Your task to perform on an android device: Go to eBay Image 0: 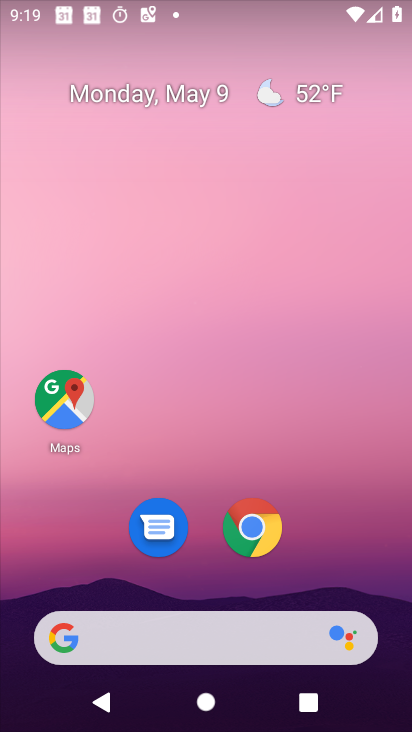
Step 0: drag from (364, 551) to (399, 156)
Your task to perform on an android device: Go to eBay Image 1: 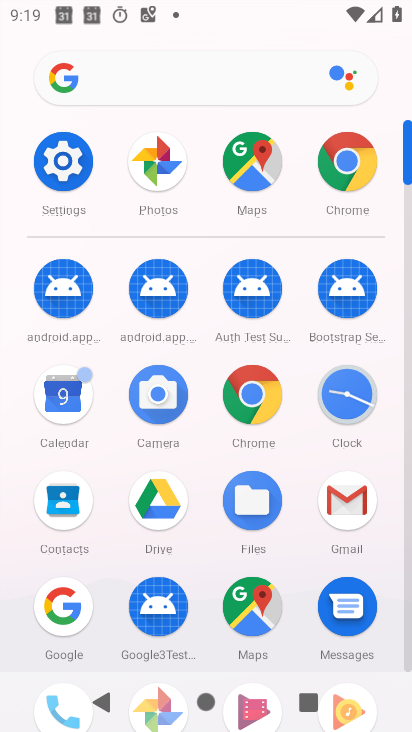
Step 1: click (363, 173)
Your task to perform on an android device: Go to eBay Image 2: 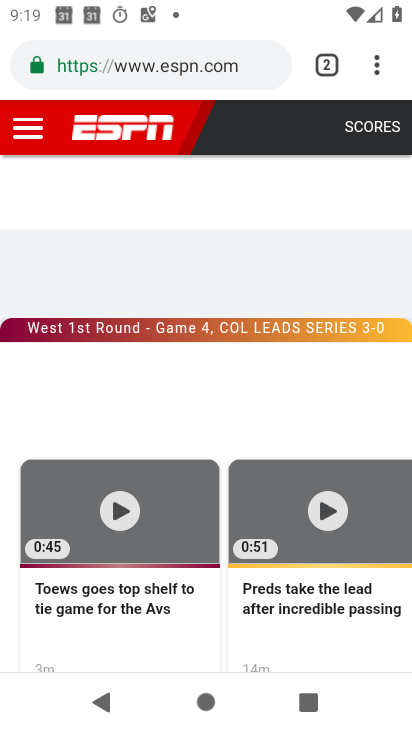
Step 2: click (243, 66)
Your task to perform on an android device: Go to eBay Image 3: 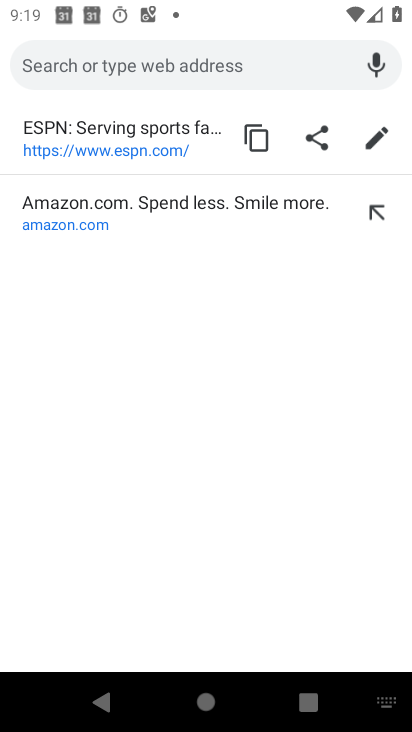
Step 3: type "ebay"
Your task to perform on an android device: Go to eBay Image 4: 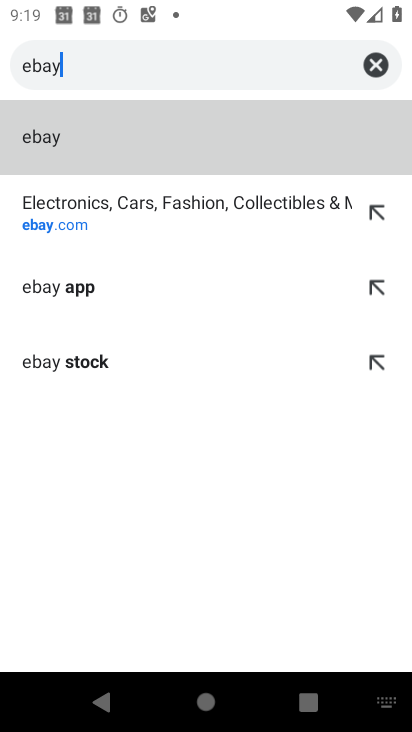
Step 4: click (108, 154)
Your task to perform on an android device: Go to eBay Image 5: 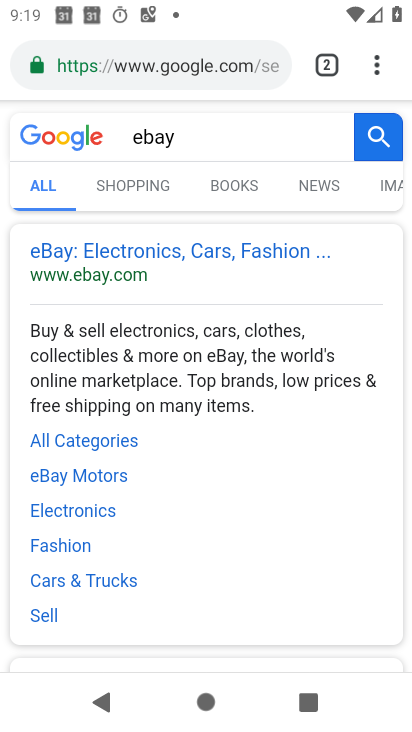
Step 5: click (188, 250)
Your task to perform on an android device: Go to eBay Image 6: 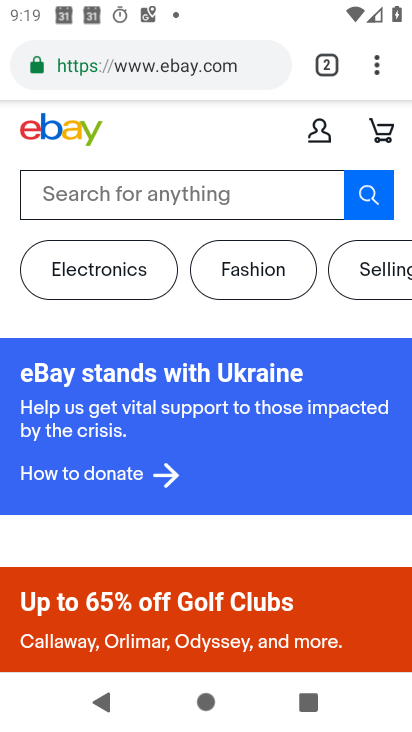
Step 6: task complete